Your task to perform on an android device: toggle priority inbox in the gmail app Image 0: 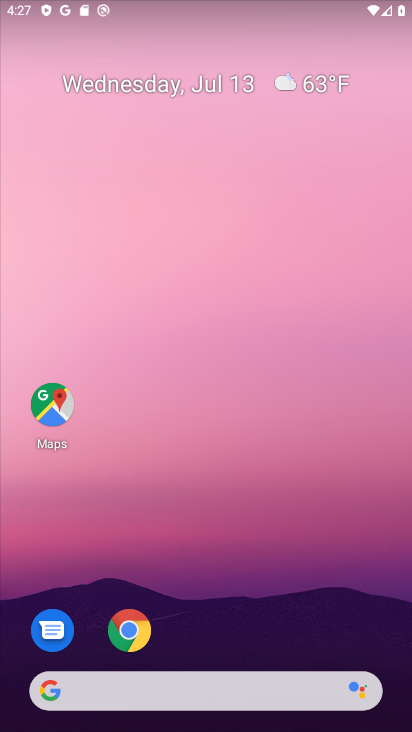
Step 0: drag from (303, 631) to (346, 188)
Your task to perform on an android device: toggle priority inbox in the gmail app Image 1: 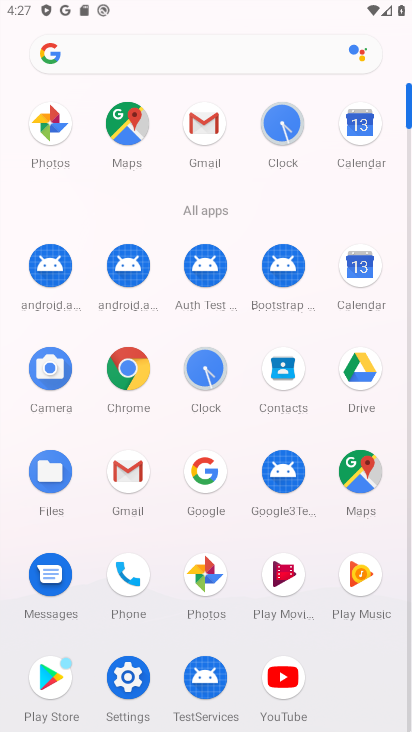
Step 1: click (120, 453)
Your task to perform on an android device: toggle priority inbox in the gmail app Image 2: 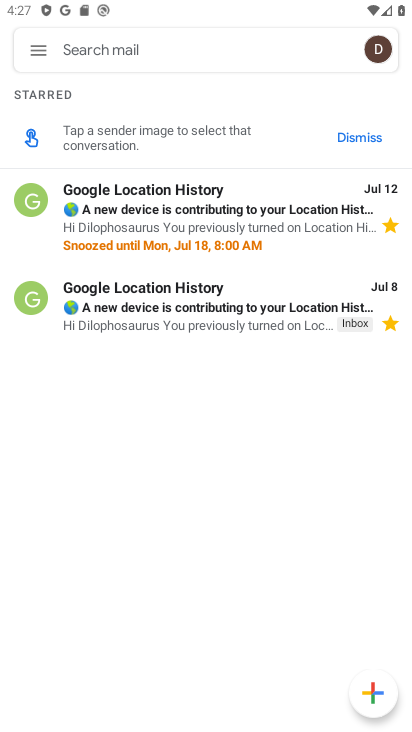
Step 2: click (47, 42)
Your task to perform on an android device: toggle priority inbox in the gmail app Image 3: 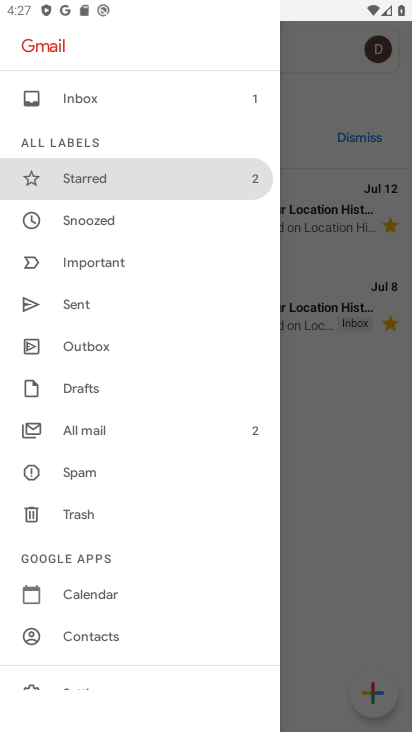
Step 3: drag from (129, 564) to (206, 223)
Your task to perform on an android device: toggle priority inbox in the gmail app Image 4: 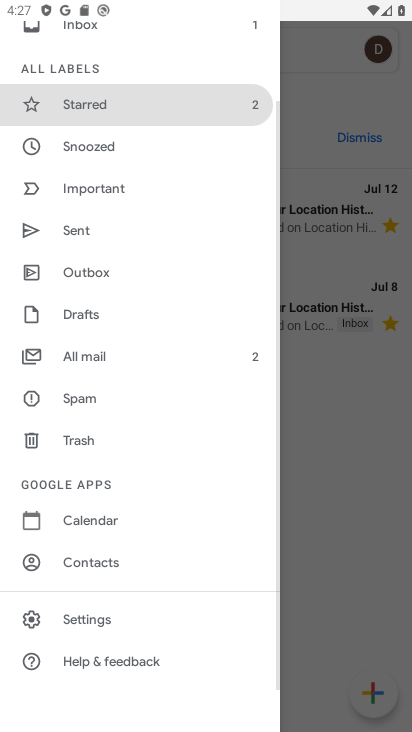
Step 4: click (78, 613)
Your task to perform on an android device: toggle priority inbox in the gmail app Image 5: 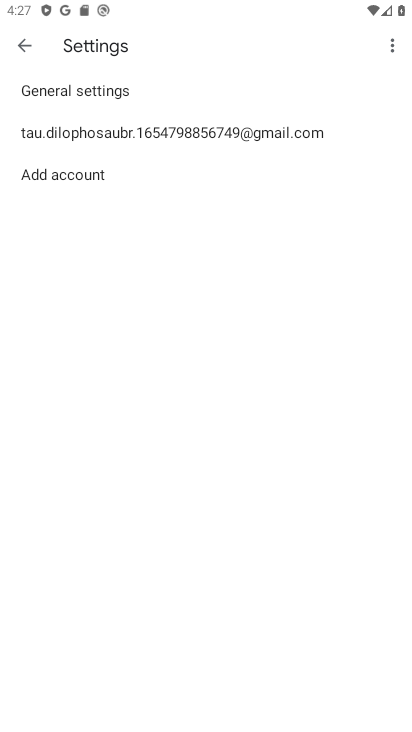
Step 5: click (117, 131)
Your task to perform on an android device: toggle priority inbox in the gmail app Image 6: 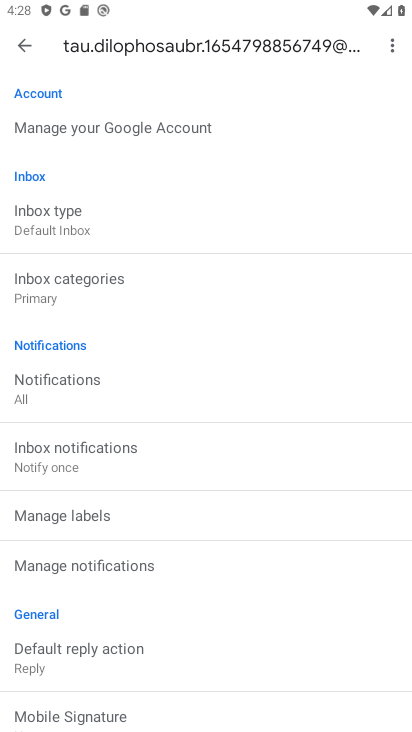
Step 6: click (65, 282)
Your task to perform on an android device: toggle priority inbox in the gmail app Image 7: 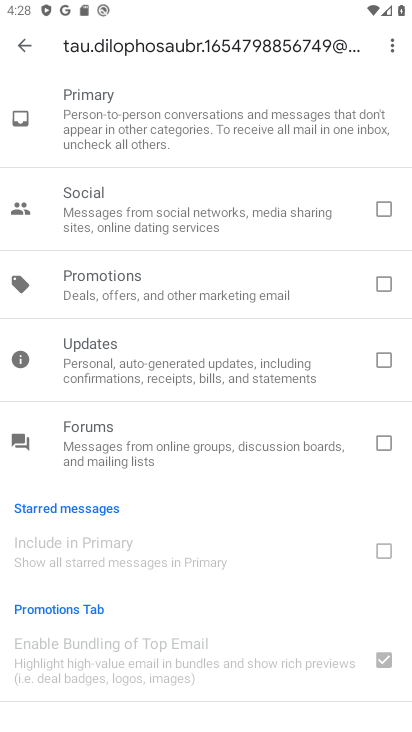
Step 7: click (9, 45)
Your task to perform on an android device: toggle priority inbox in the gmail app Image 8: 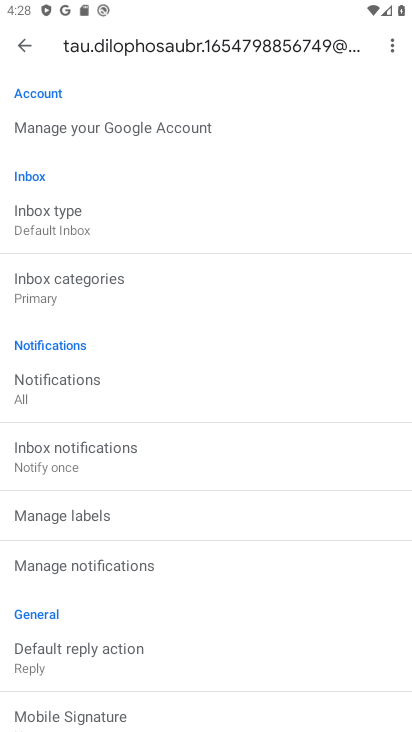
Step 8: click (37, 221)
Your task to perform on an android device: toggle priority inbox in the gmail app Image 9: 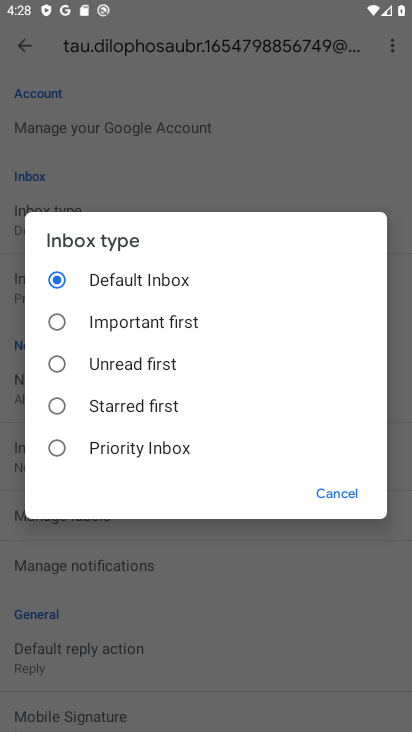
Step 9: click (110, 431)
Your task to perform on an android device: toggle priority inbox in the gmail app Image 10: 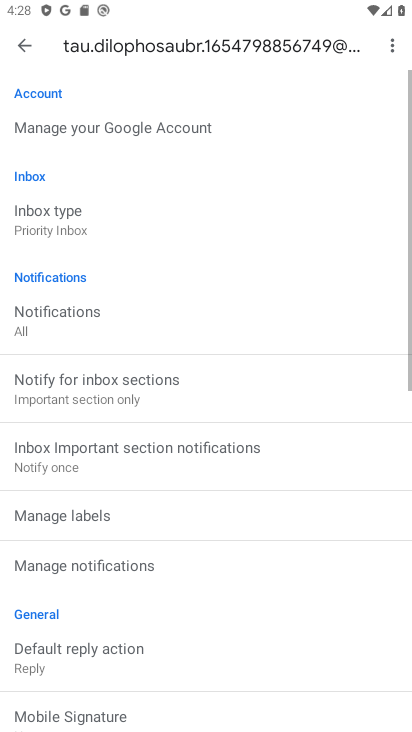
Step 10: task complete